Your task to perform on an android device: add a label to a message in the gmail app Image 0: 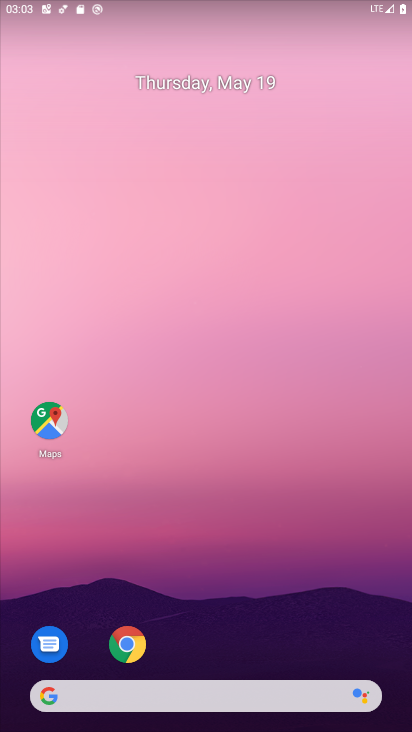
Step 0: drag from (221, 625) to (263, 228)
Your task to perform on an android device: add a label to a message in the gmail app Image 1: 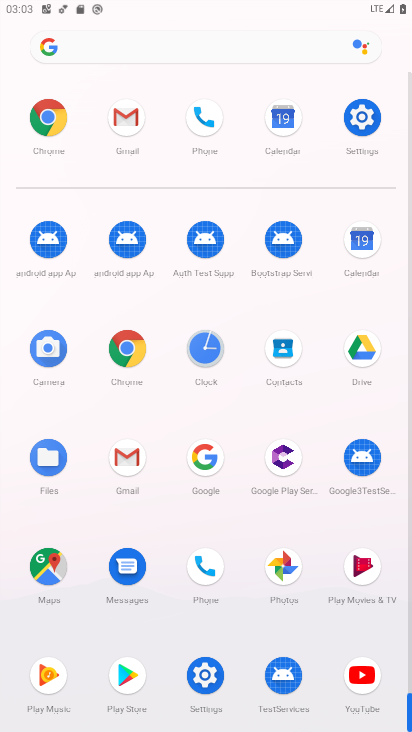
Step 1: click (116, 446)
Your task to perform on an android device: add a label to a message in the gmail app Image 2: 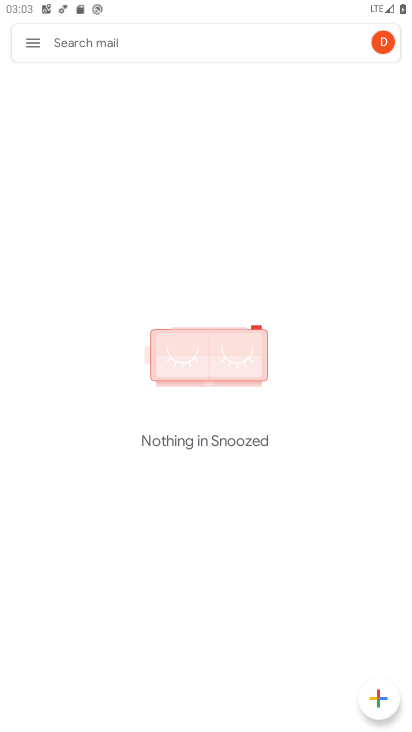
Step 2: click (38, 39)
Your task to perform on an android device: add a label to a message in the gmail app Image 3: 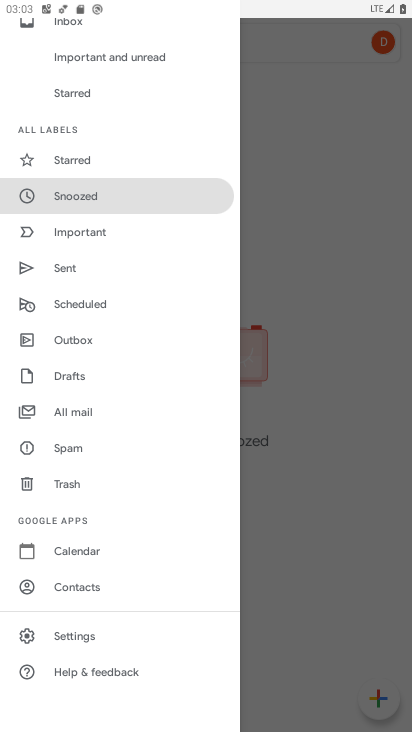
Step 3: click (122, 403)
Your task to perform on an android device: add a label to a message in the gmail app Image 4: 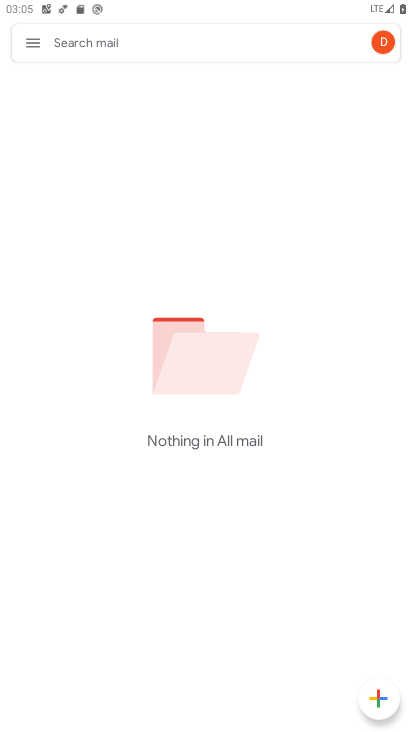
Step 4: task complete